Your task to perform on an android device: Go to network settings Image 0: 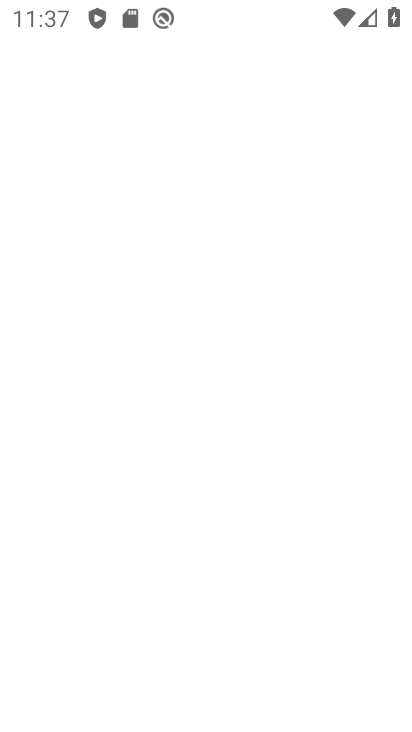
Step 0: drag from (331, 572) to (326, 286)
Your task to perform on an android device: Go to network settings Image 1: 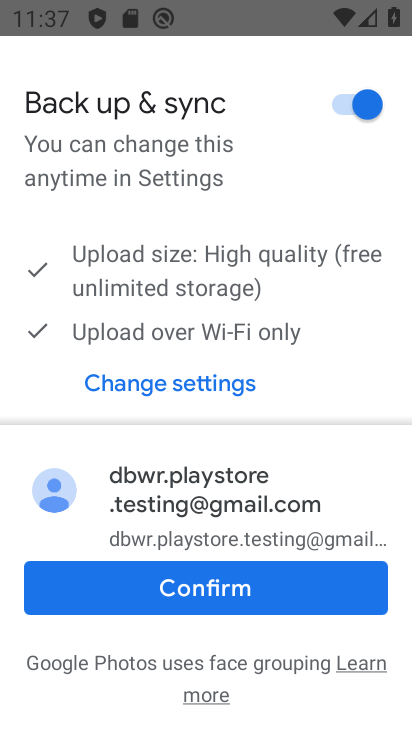
Step 1: click (206, 599)
Your task to perform on an android device: Go to network settings Image 2: 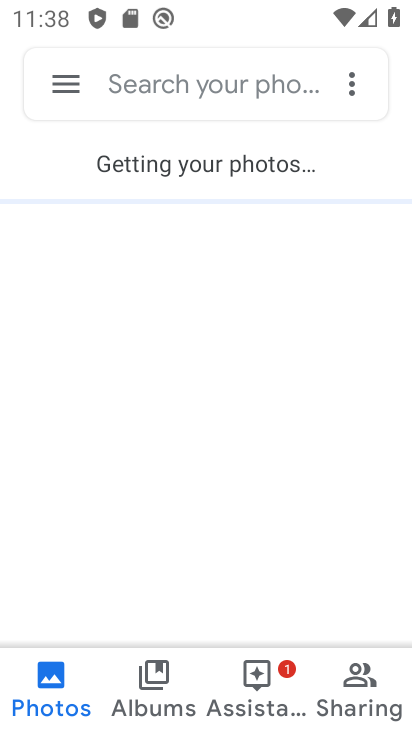
Step 2: press home button
Your task to perform on an android device: Go to network settings Image 3: 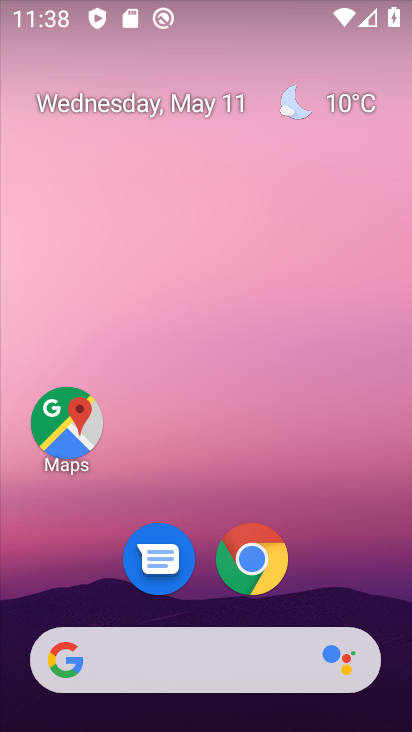
Step 3: drag from (314, 490) to (359, 147)
Your task to perform on an android device: Go to network settings Image 4: 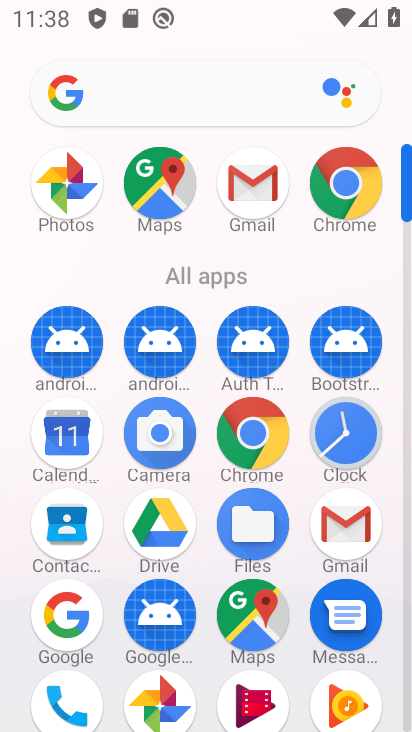
Step 4: drag from (299, 561) to (323, 329)
Your task to perform on an android device: Go to network settings Image 5: 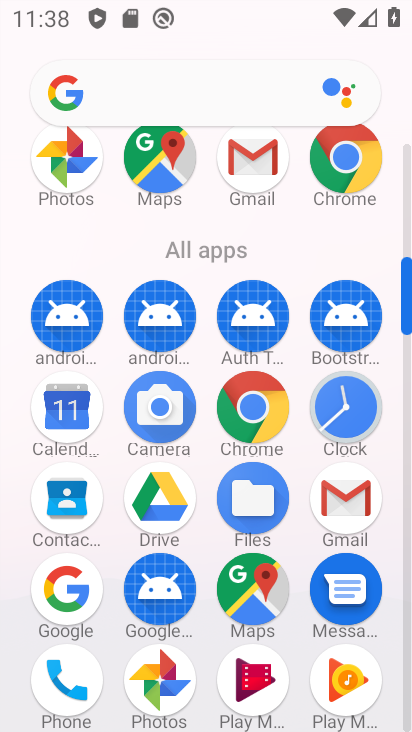
Step 5: click (253, 433)
Your task to perform on an android device: Go to network settings Image 6: 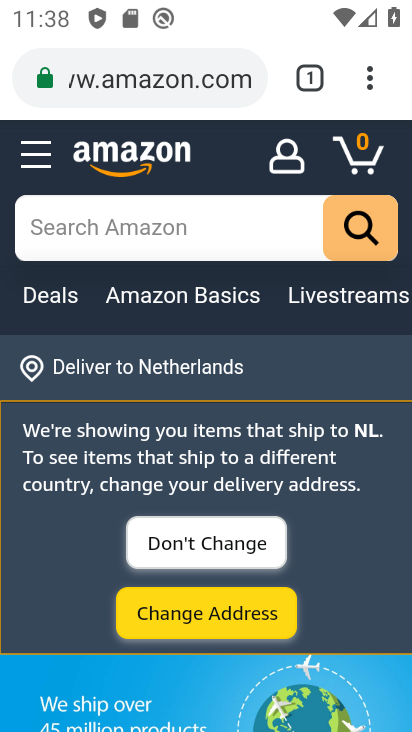
Step 6: click (367, 86)
Your task to perform on an android device: Go to network settings Image 7: 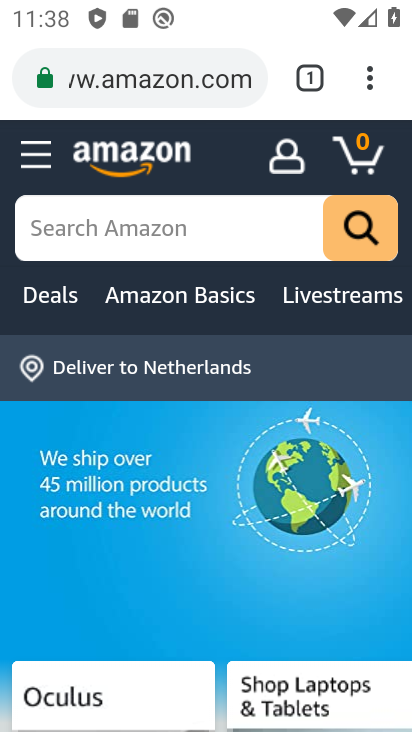
Step 7: click (369, 83)
Your task to perform on an android device: Go to network settings Image 8: 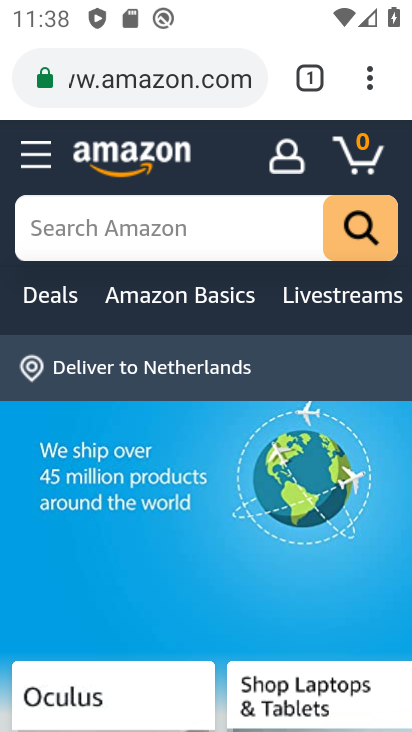
Step 8: click (373, 76)
Your task to perform on an android device: Go to network settings Image 9: 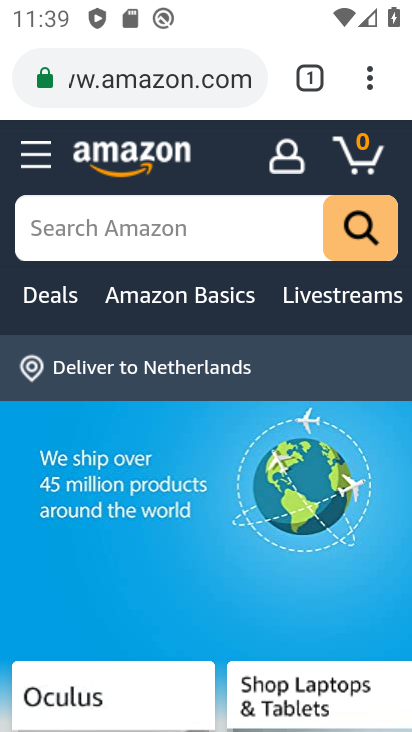
Step 9: click (373, 85)
Your task to perform on an android device: Go to network settings Image 10: 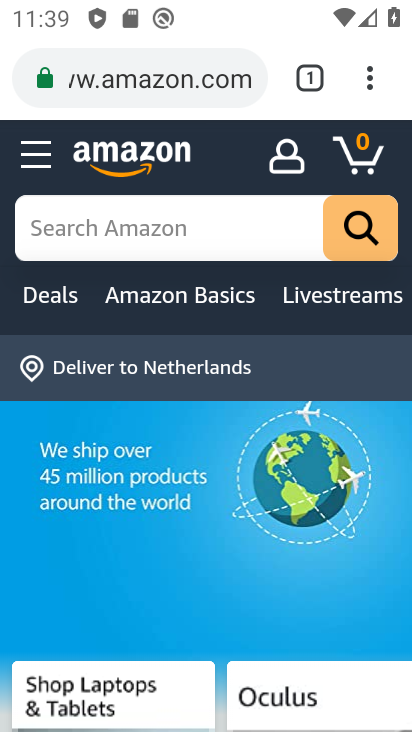
Step 10: click (371, 83)
Your task to perform on an android device: Go to network settings Image 11: 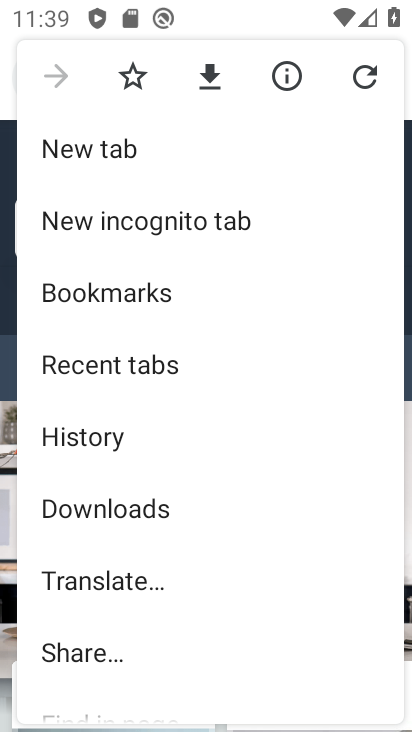
Step 11: drag from (190, 670) to (190, 367)
Your task to perform on an android device: Go to network settings Image 12: 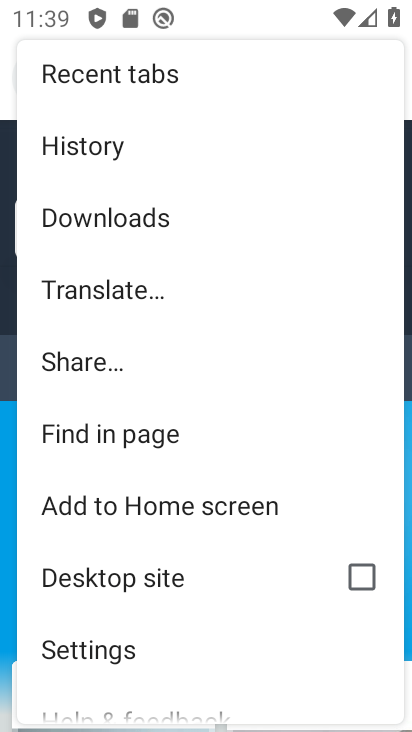
Step 12: press home button
Your task to perform on an android device: Go to network settings Image 13: 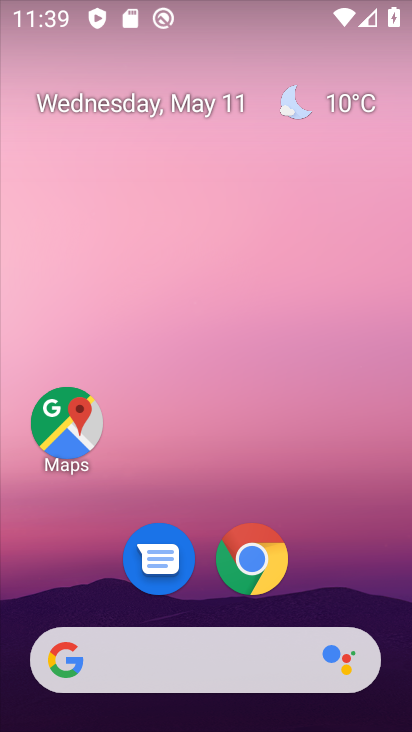
Step 13: drag from (317, 562) to (324, 227)
Your task to perform on an android device: Go to network settings Image 14: 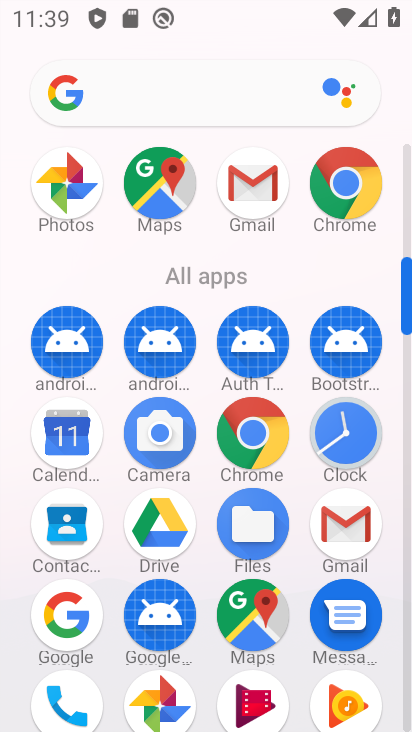
Step 14: drag from (278, 610) to (252, 353)
Your task to perform on an android device: Go to network settings Image 15: 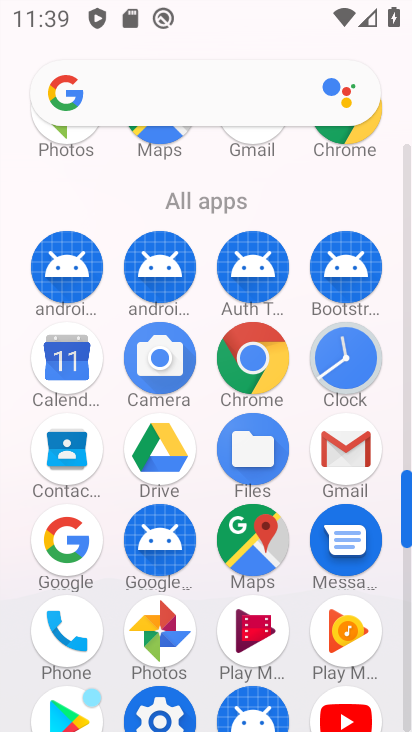
Step 15: drag from (201, 582) to (199, 304)
Your task to perform on an android device: Go to network settings Image 16: 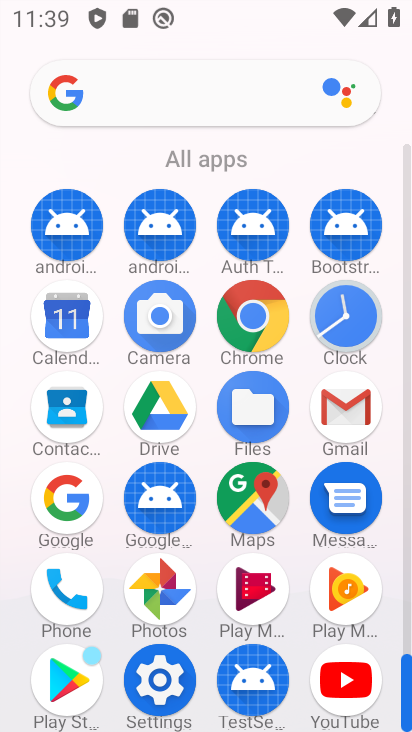
Step 16: click (147, 682)
Your task to perform on an android device: Go to network settings Image 17: 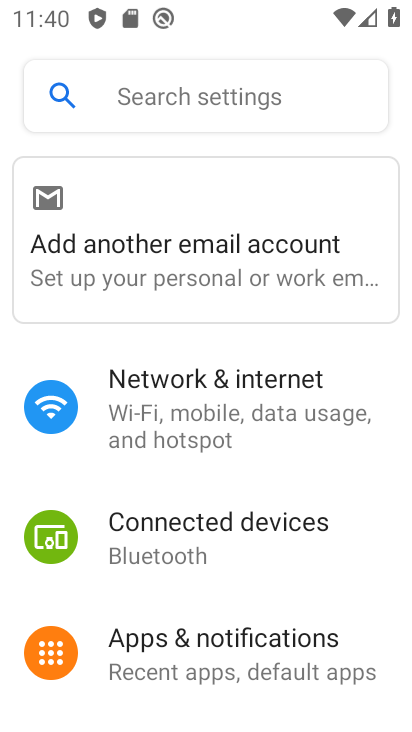
Step 17: click (228, 420)
Your task to perform on an android device: Go to network settings Image 18: 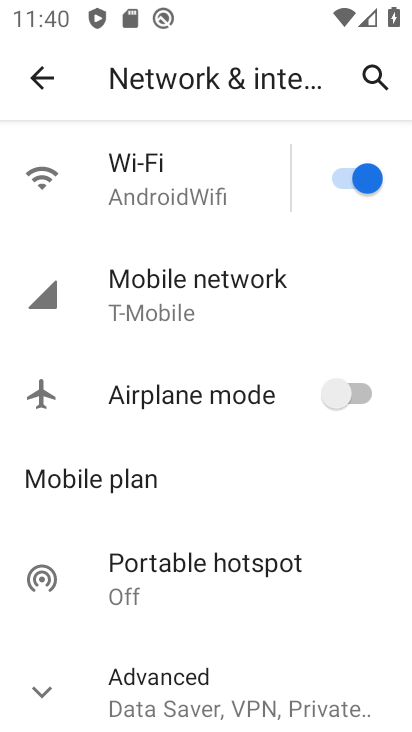
Step 18: task complete